Your task to perform on an android device: turn off location history Image 0: 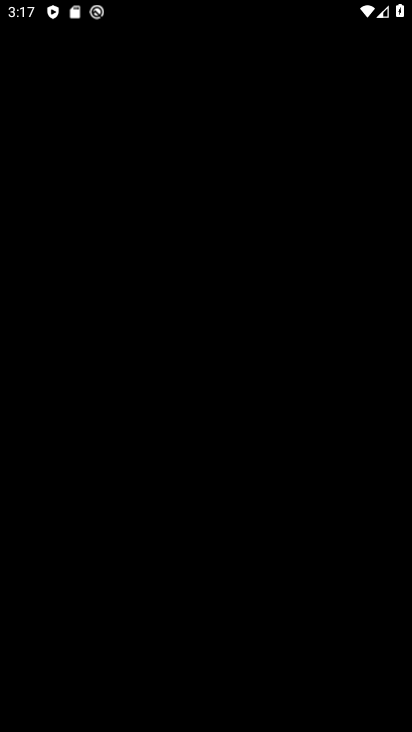
Step 0: press home button
Your task to perform on an android device: turn off location history Image 1: 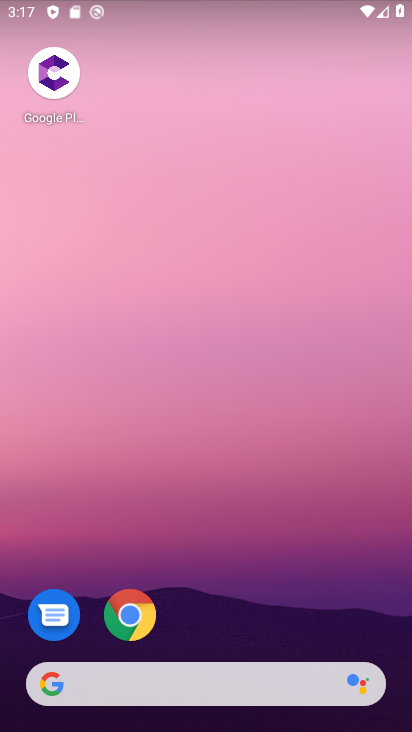
Step 1: drag from (227, 614) to (227, 197)
Your task to perform on an android device: turn off location history Image 2: 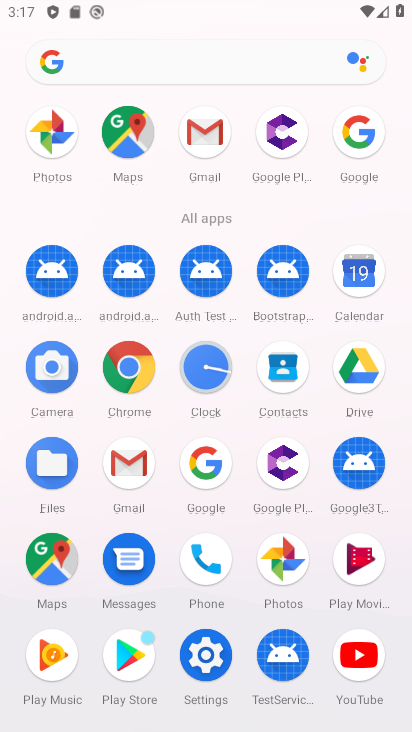
Step 2: click (194, 633)
Your task to perform on an android device: turn off location history Image 3: 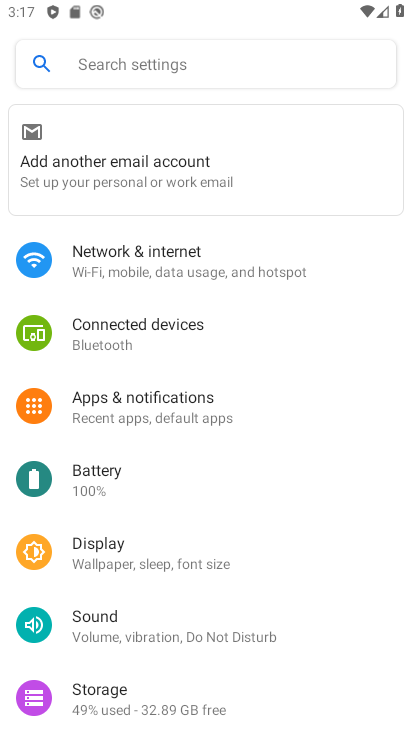
Step 3: drag from (220, 451) to (243, 237)
Your task to perform on an android device: turn off location history Image 4: 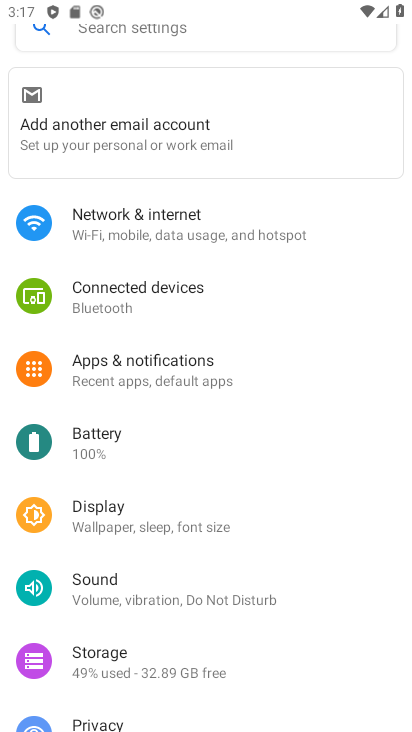
Step 4: drag from (149, 643) to (190, 341)
Your task to perform on an android device: turn off location history Image 5: 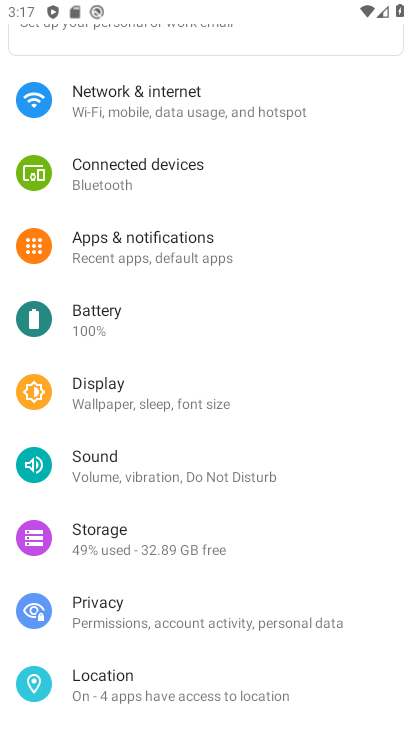
Step 5: click (160, 665)
Your task to perform on an android device: turn off location history Image 6: 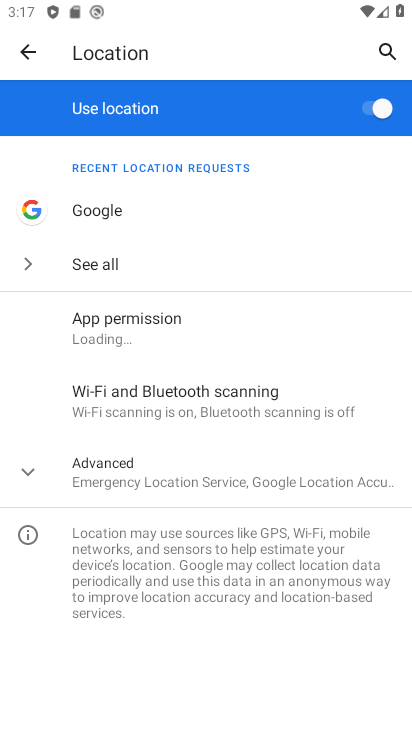
Step 6: click (204, 480)
Your task to perform on an android device: turn off location history Image 7: 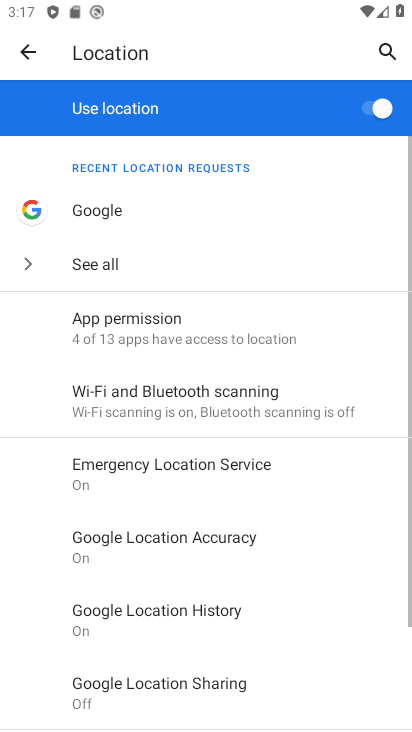
Step 7: click (175, 612)
Your task to perform on an android device: turn off location history Image 8: 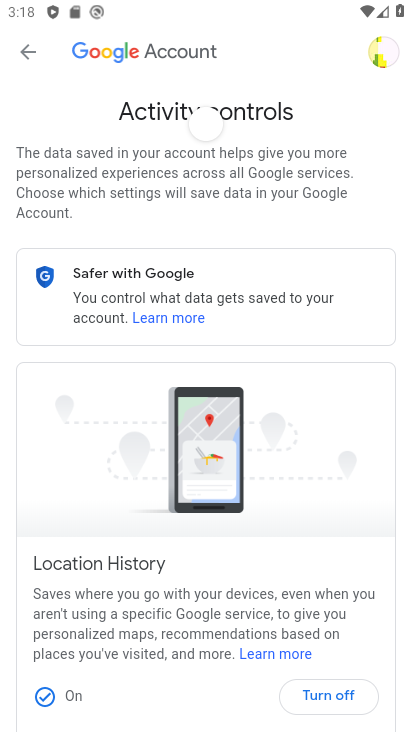
Step 8: click (319, 686)
Your task to perform on an android device: turn off location history Image 9: 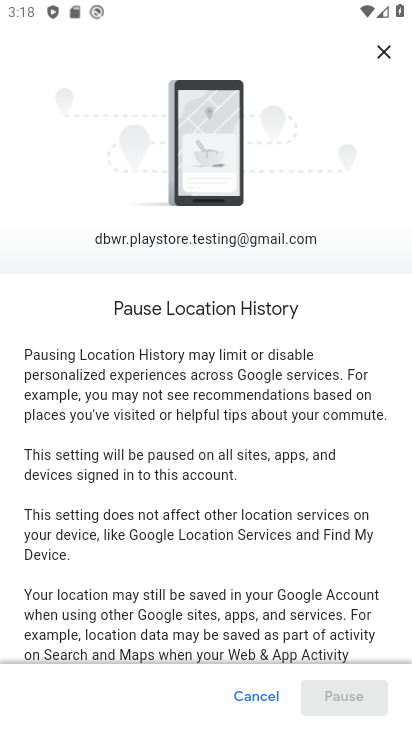
Step 9: drag from (276, 599) to (238, 257)
Your task to perform on an android device: turn off location history Image 10: 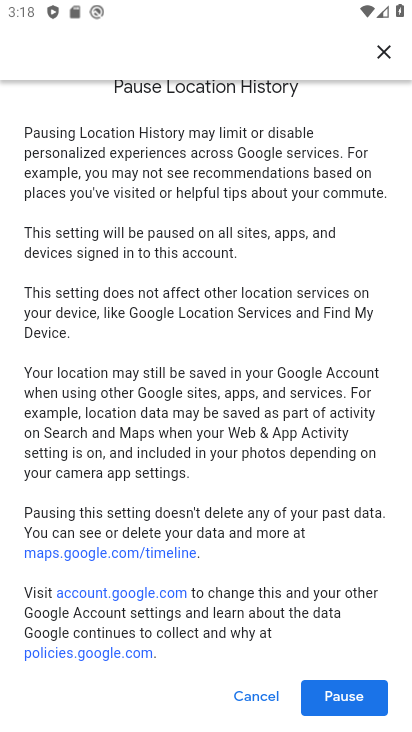
Step 10: click (346, 686)
Your task to perform on an android device: turn off location history Image 11: 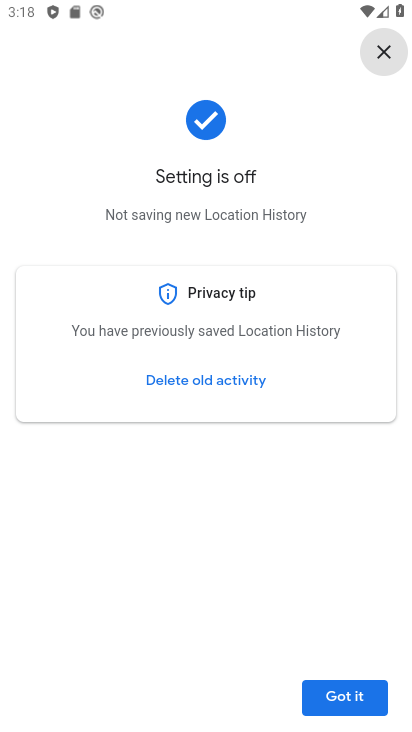
Step 11: task complete